Your task to perform on an android device: Open Google Chrome Image 0: 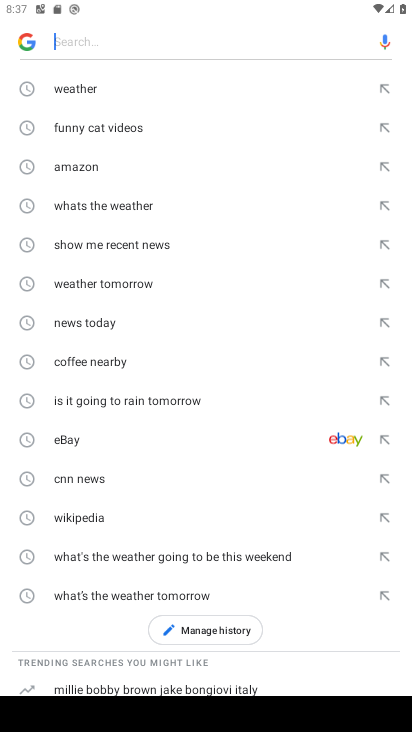
Step 0: press home button
Your task to perform on an android device: Open Google Chrome Image 1: 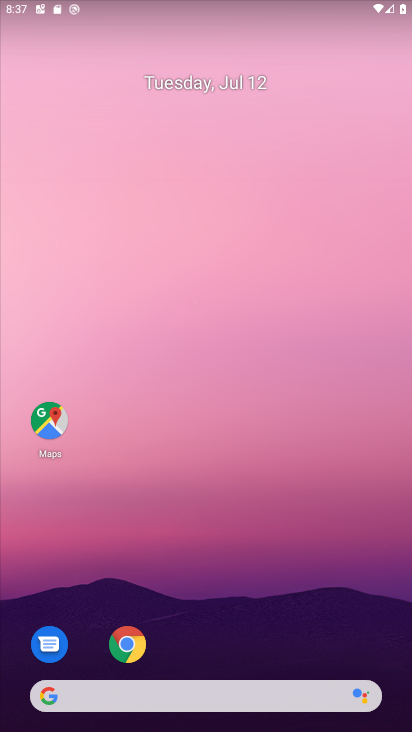
Step 1: drag from (356, 660) to (409, 104)
Your task to perform on an android device: Open Google Chrome Image 2: 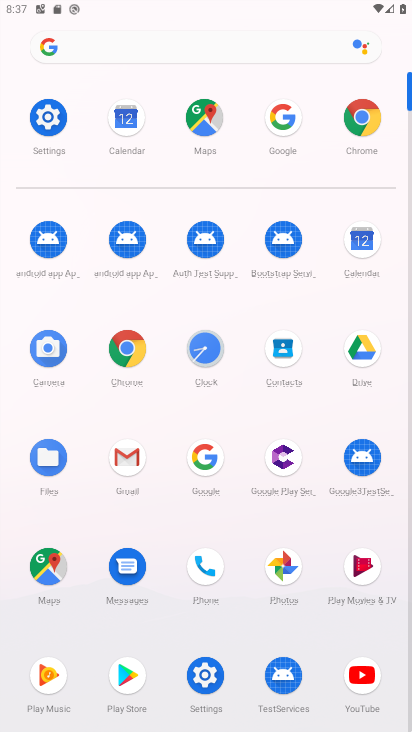
Step 2: click (306, 137)
Your task to perform on an android device: Open Google Chrome Image 3: 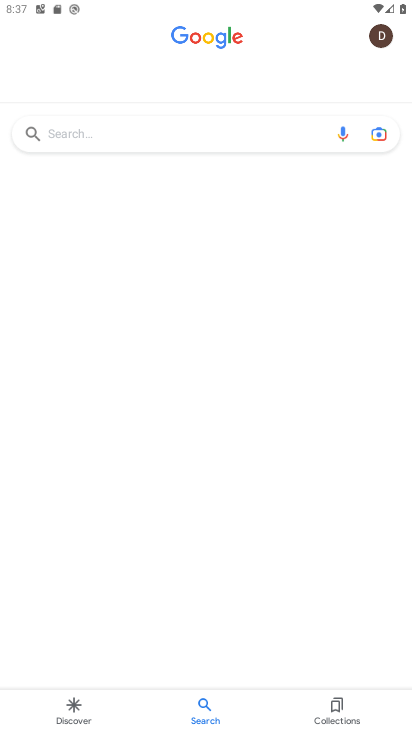
Step 3: task complete